Your task to perform on an android device: Open Google Chrome Image 0: 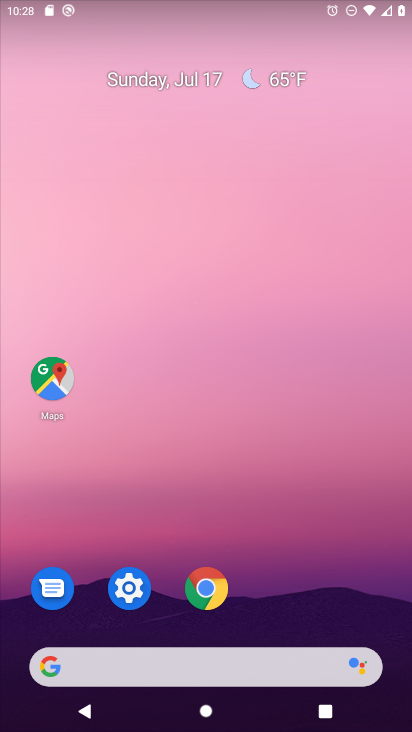
Step 0: drag from (218, 608) to (174, 292)
Your task to perform on an android device: Open Google Chrome Image 1: 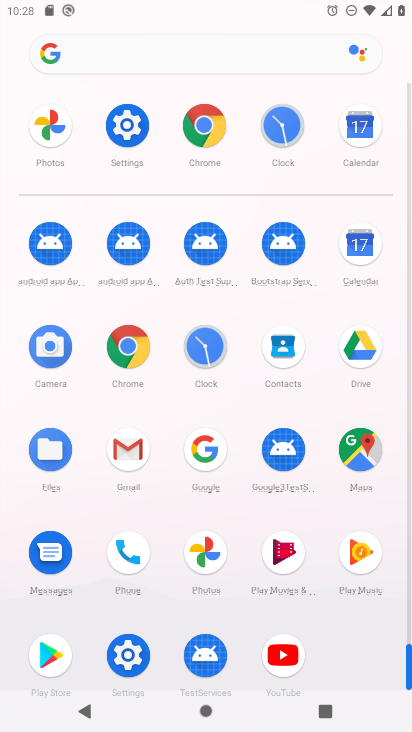
Step 1: click (129, 350)
Your task to perform on an android device: Open Google Chrome Image 2: 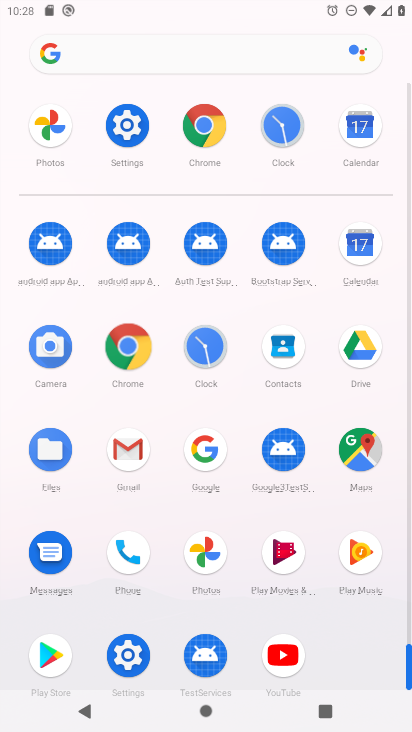
Step 2: click (131, 350)
Your task to perform on an android device: Open Google Chrome Image 3: 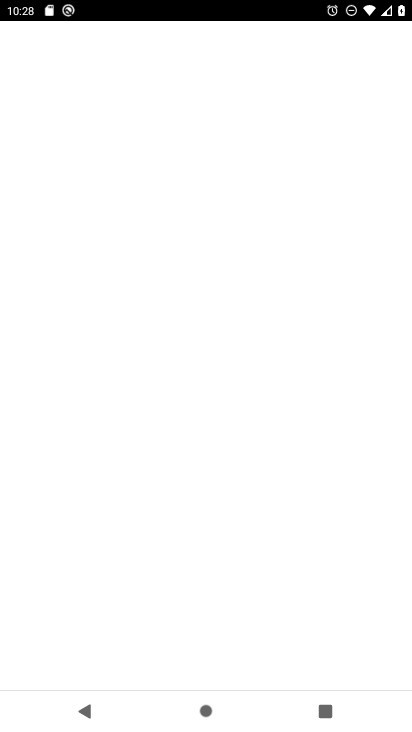
Step 3: click (141, 345)
Your task to perform on an android device: Open Google Chrome Image 4: 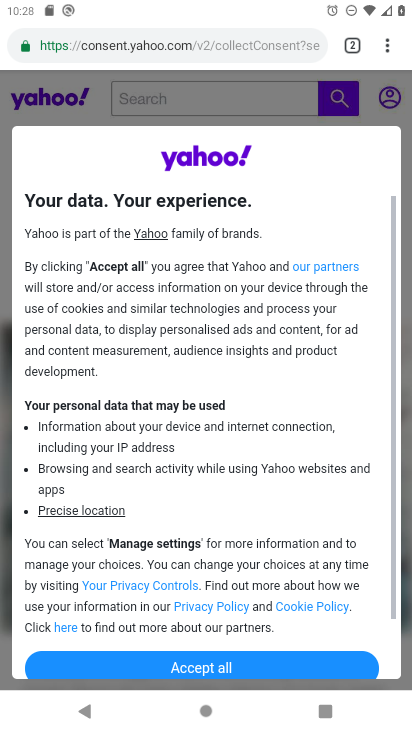
Step 4: drag from (382, 37) to (213, 90)
Your task to perform on an android device: Open Google Chrome Image 5: 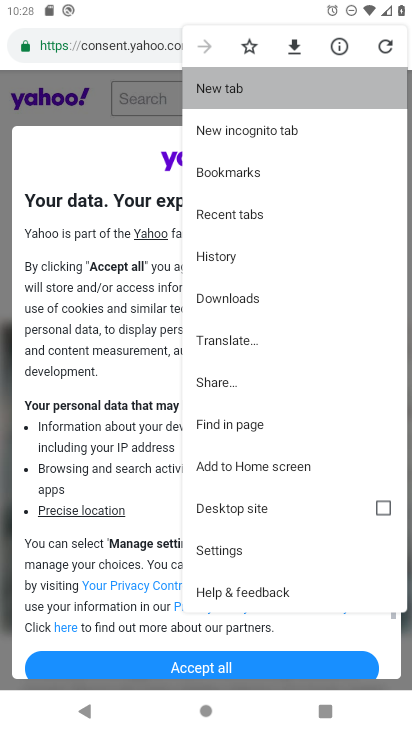
Step 5: click (212, 91)
Your task to perform on an android device: Open Google Chrome Image 6: 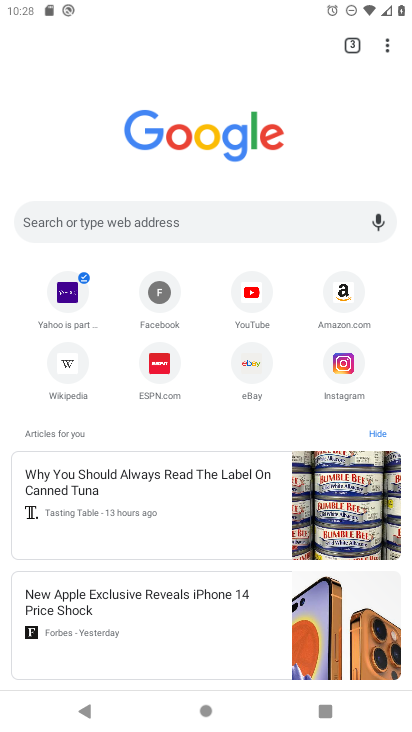
Step 6: task complete